Your task to perform on an android device: uninstall "McDonald's" Image 0: 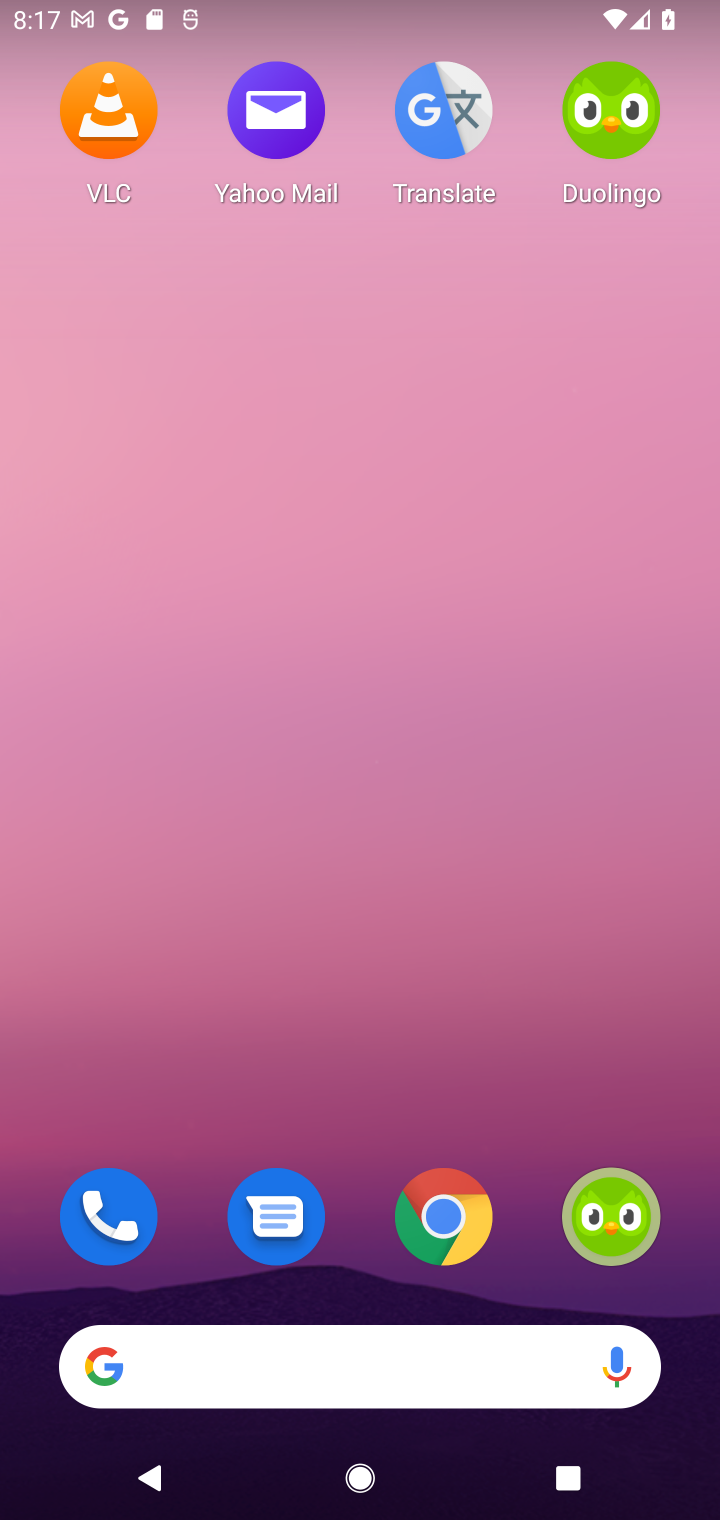
Step 0: press home button
Your task to perform on an android device: uninstall "McDonald's" Image 1: 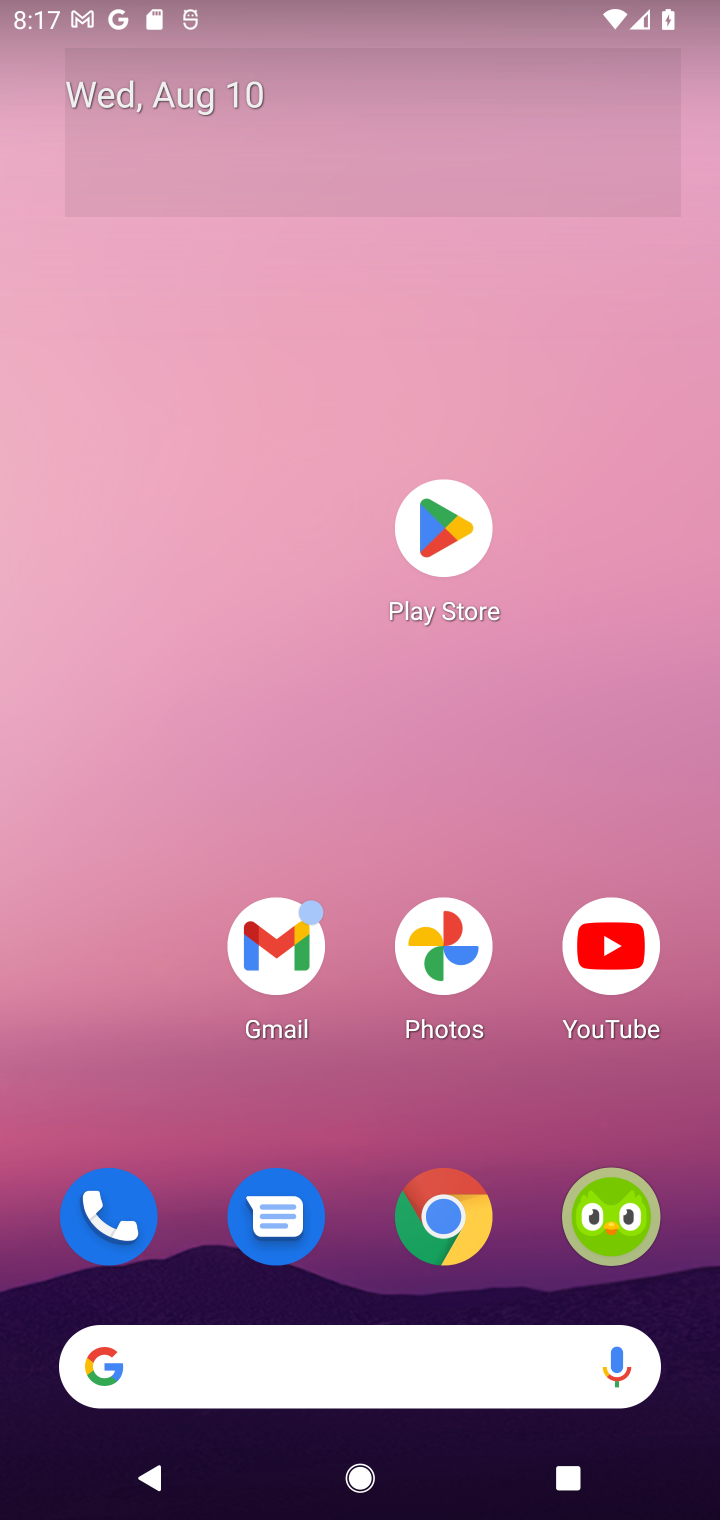
Step 1: click (460, 516)
Your task to perform on an android device: uninstall "McDonald's" Image 2: 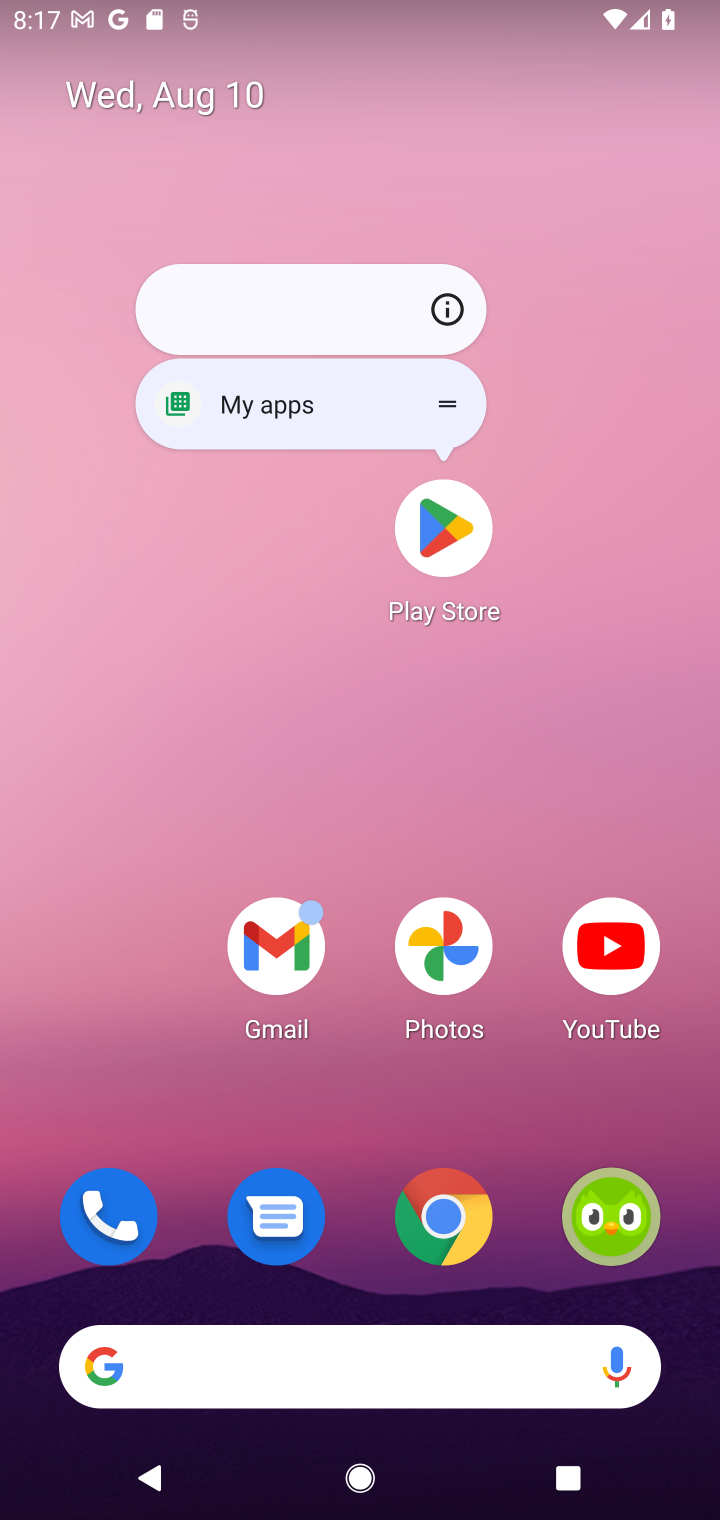
Step 2: click (445, 536)
Your task to perform on an android device: uninstall "McDonald's" Image 3: 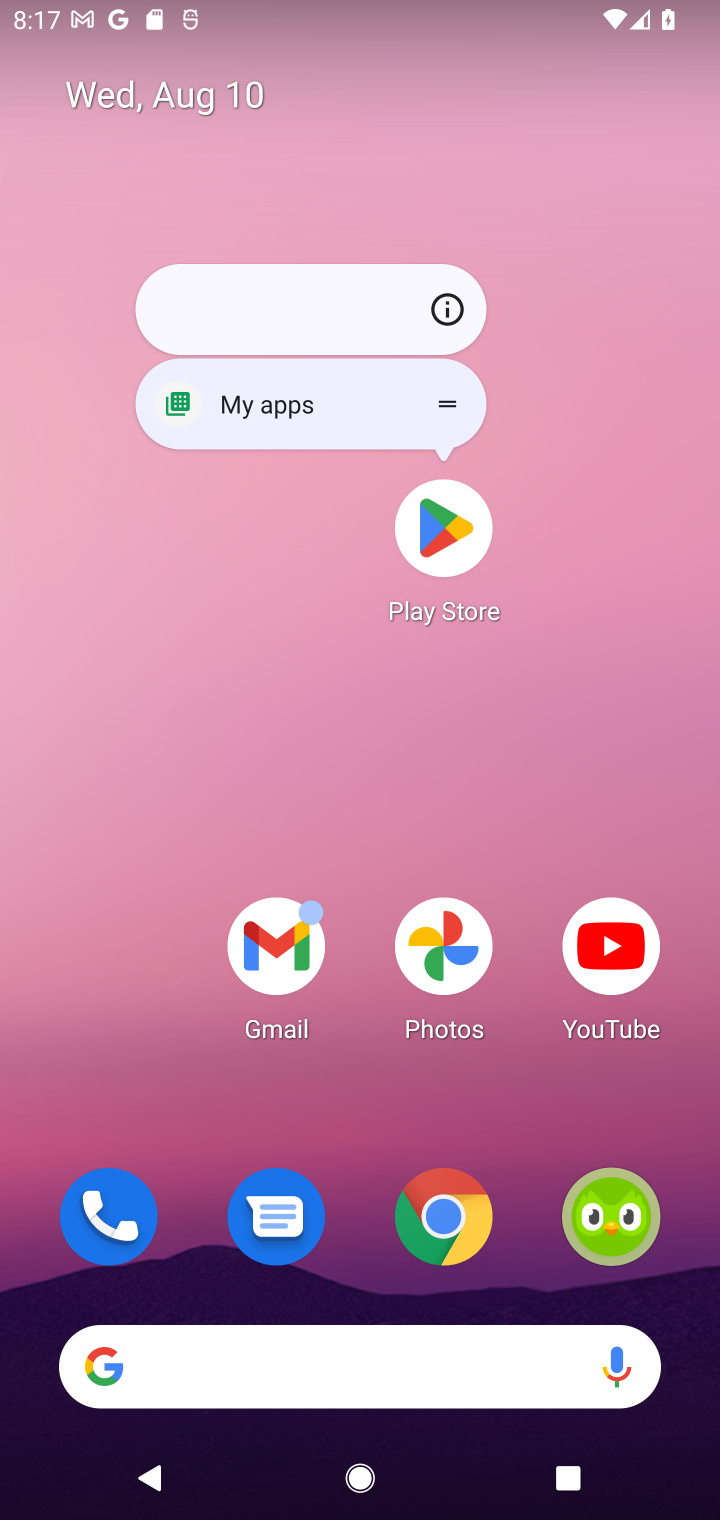
Step 3: click (447, 531)
Your task to perform on an android device: uninstall "McDonald's" Image 4: 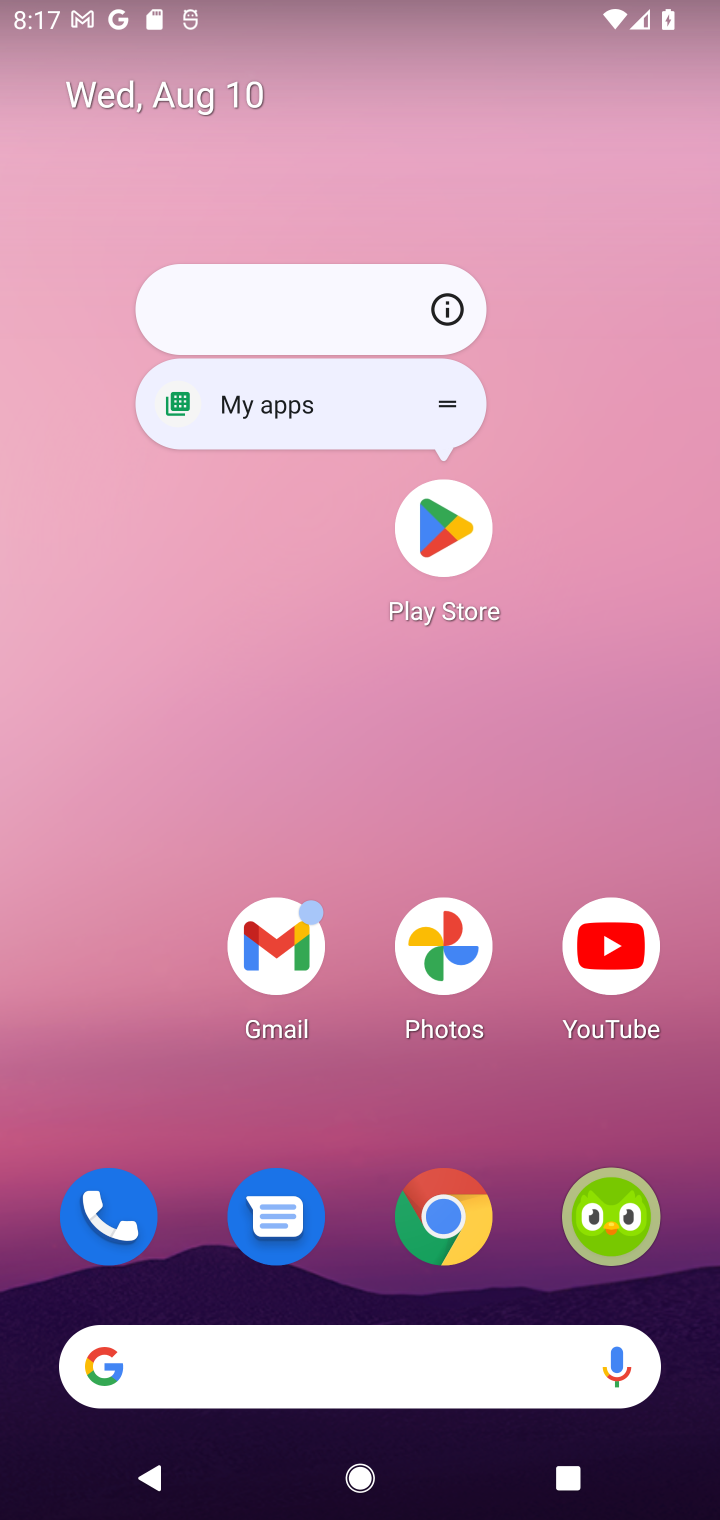
Step 4: click (447, 529)
Your task to perform on an android device: uninstall "McDonald's" Image 5: 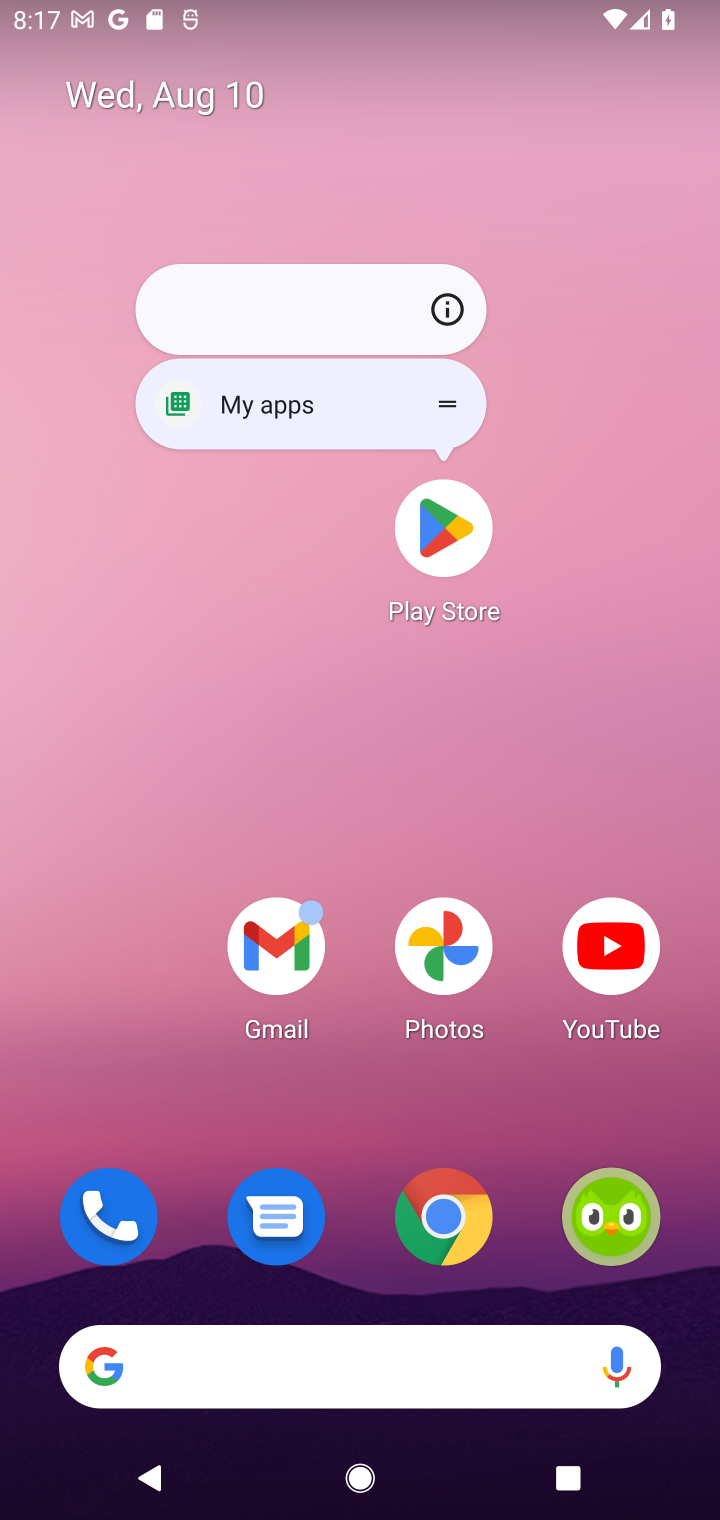
Step 5: click (447, 527)
Your task to perform on an android device: uninstall "McDonald's" Image 6: 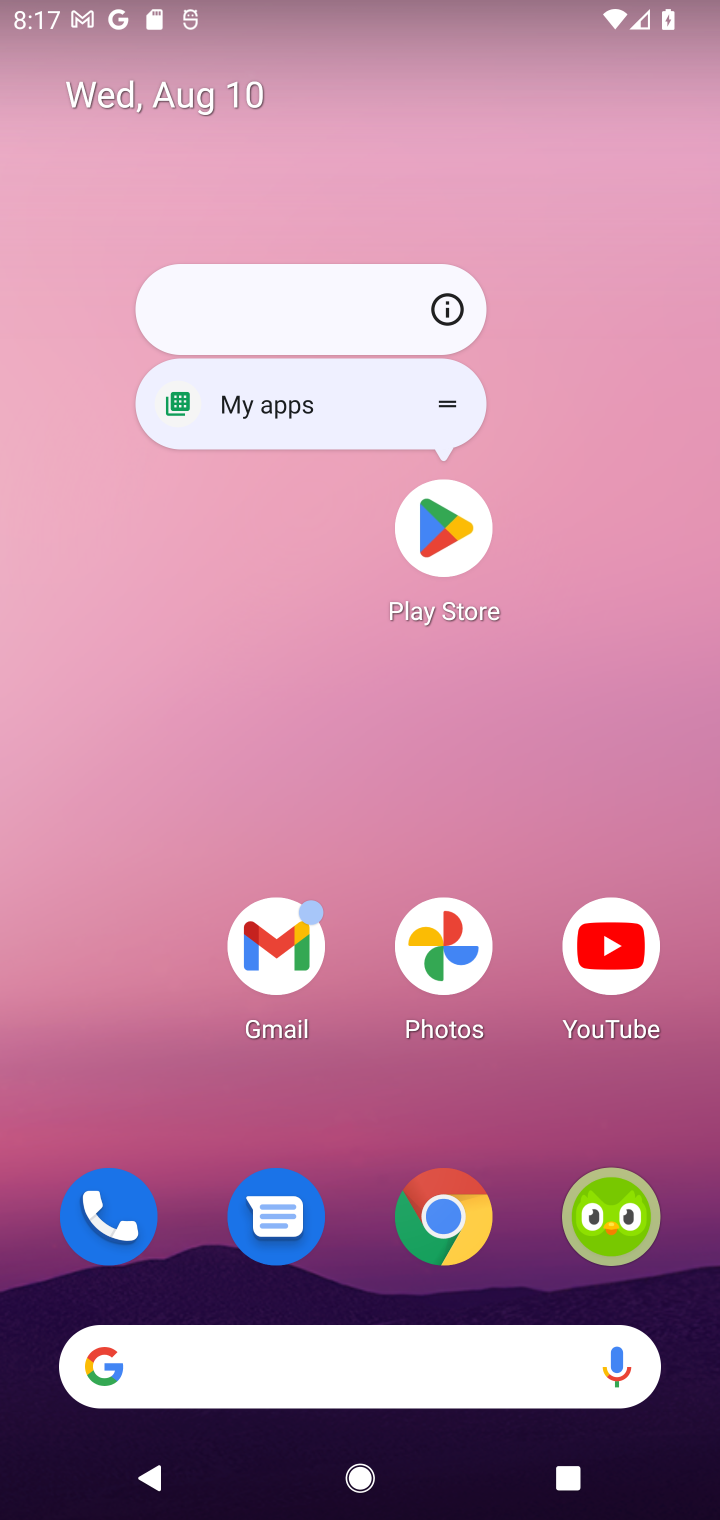
Step 6: click (447, 531)
Your task to perform on an android device: uninstall "McDonald's" Image 7: 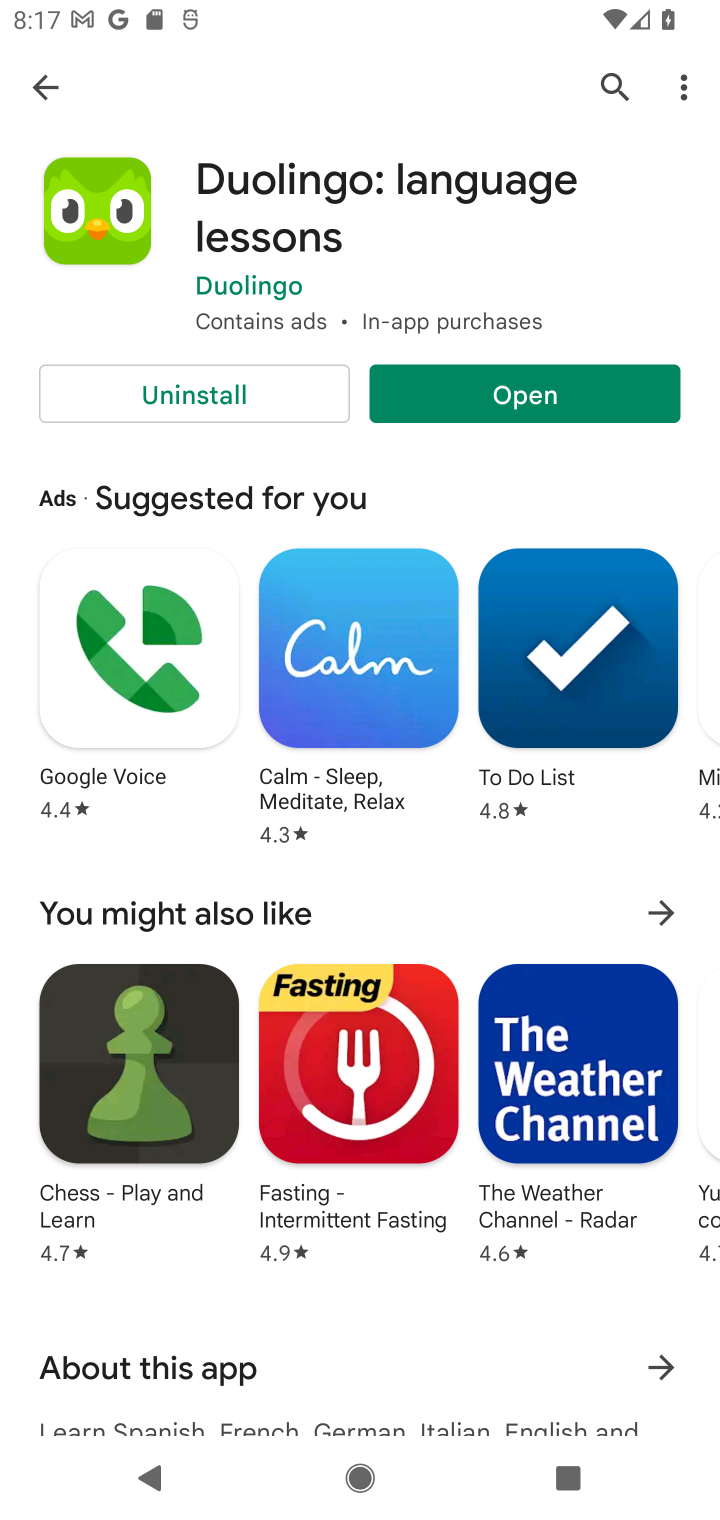
Step 7: click (612, 75)
Your task to perform on an android device: uninstall "McDonald's" Image 8: 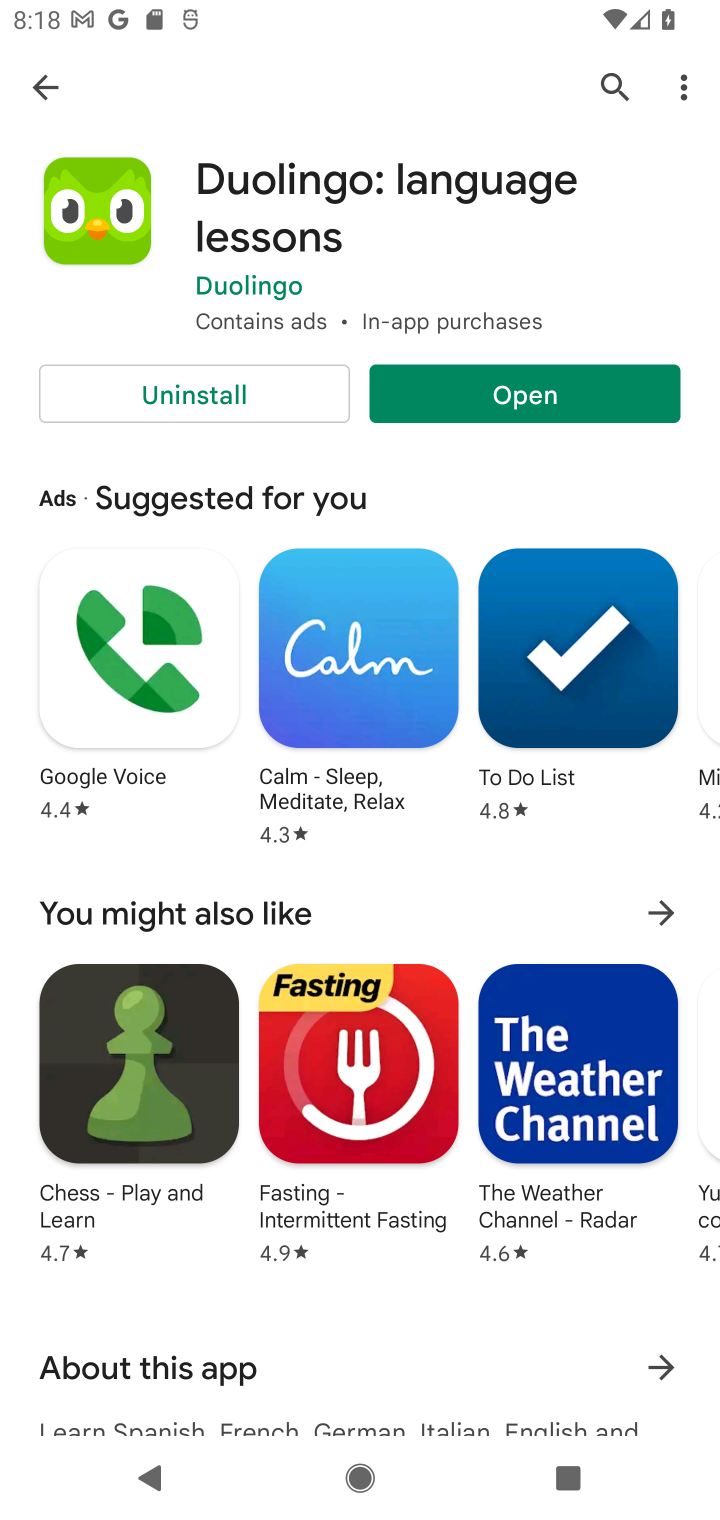
Step 8: click (599, 77)
Your task to perform on an android device: uninstall "McDonald's" Image 9: 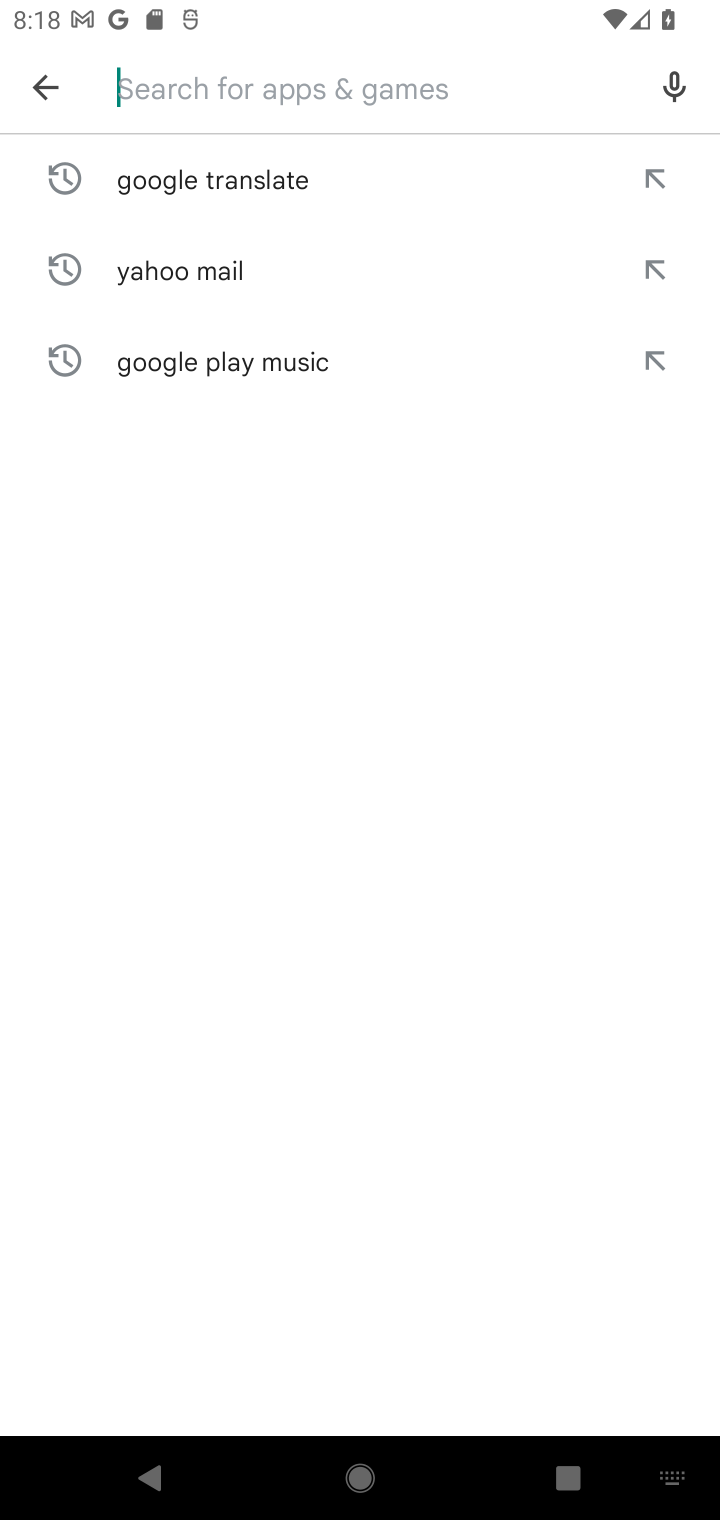
Step 9: type "McDonald's"
Your task to perform on an android device: uninstall "McDonald's" Image 10: 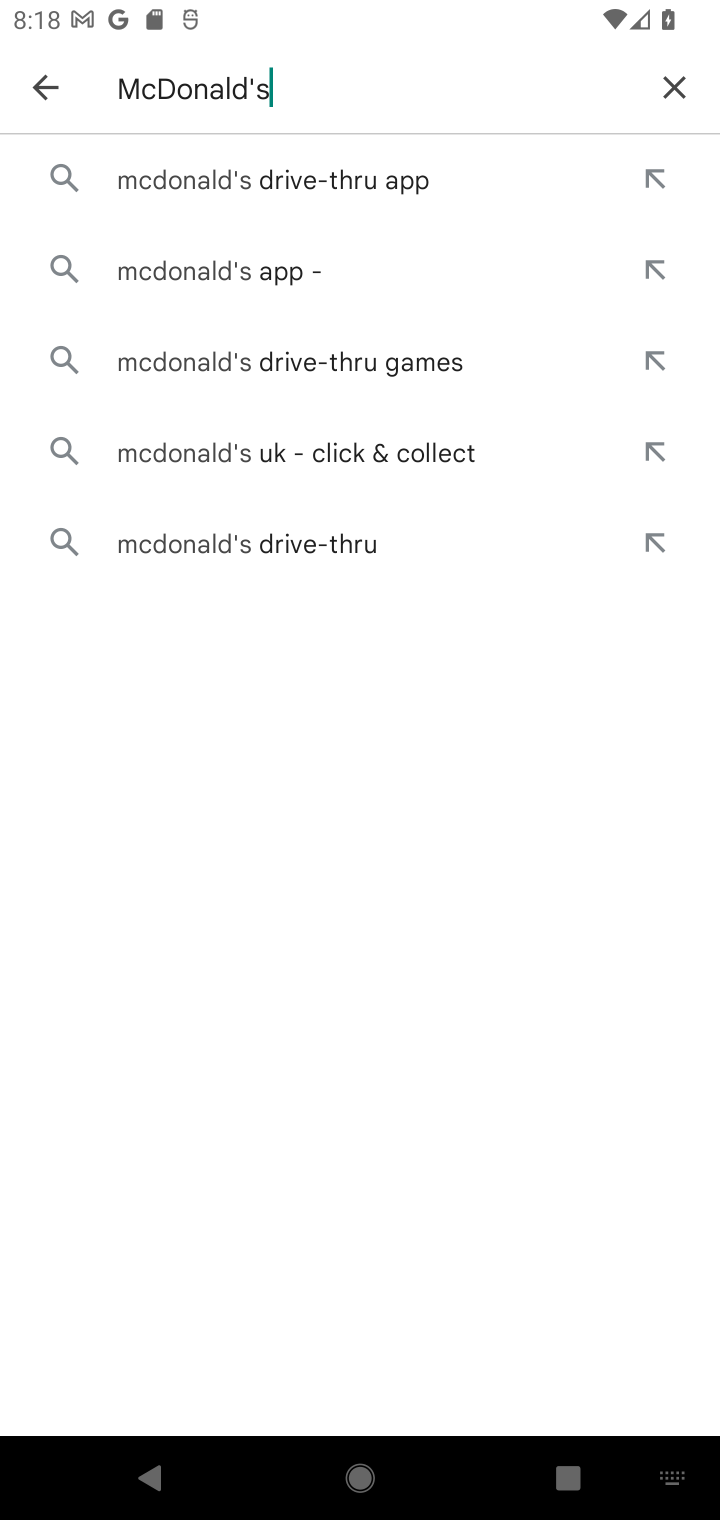
Step 10: click (333, 178)
Your task to perform on an android device: uninstall "McDonald's" Image 11: 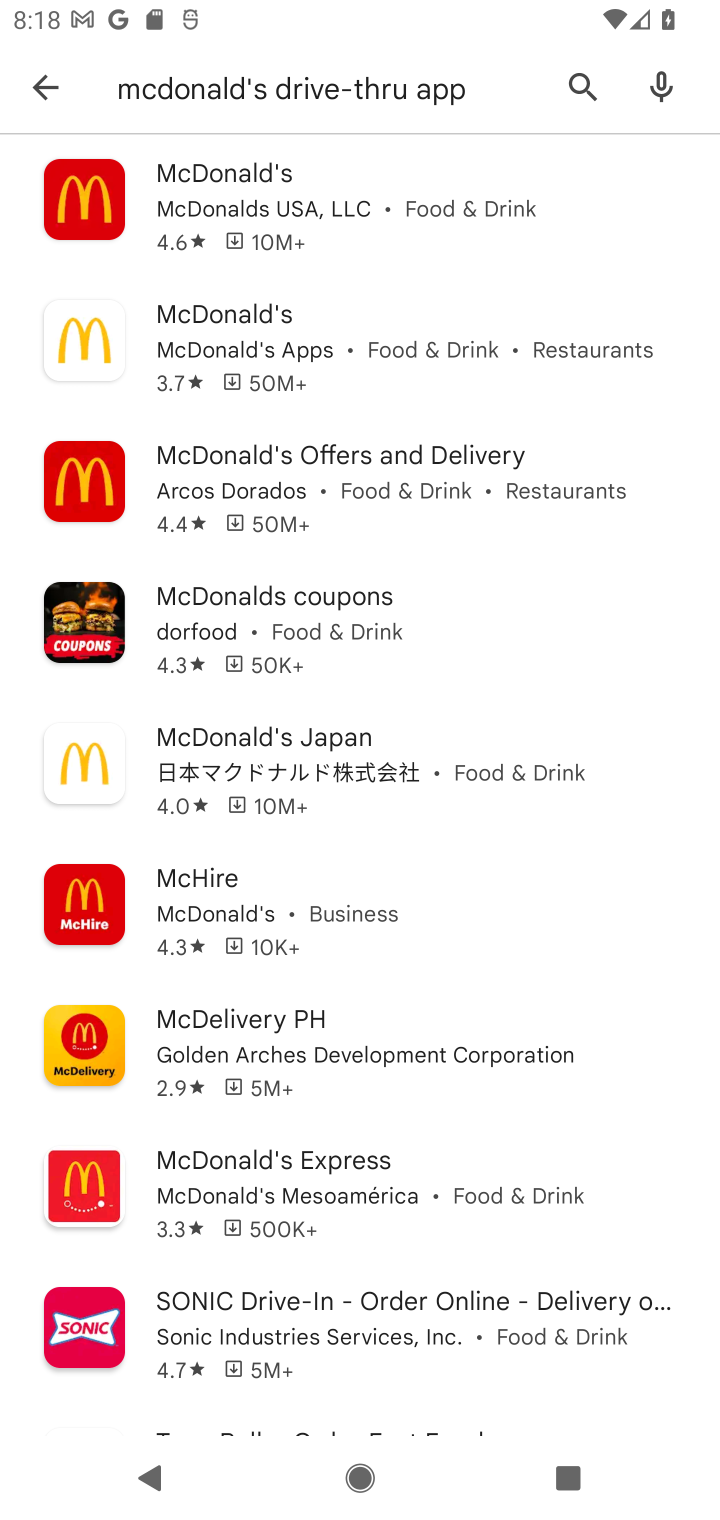
Step 11: click (311, 199)
Your task to perform on an android device: uninstall "McDonald's" Image 12: 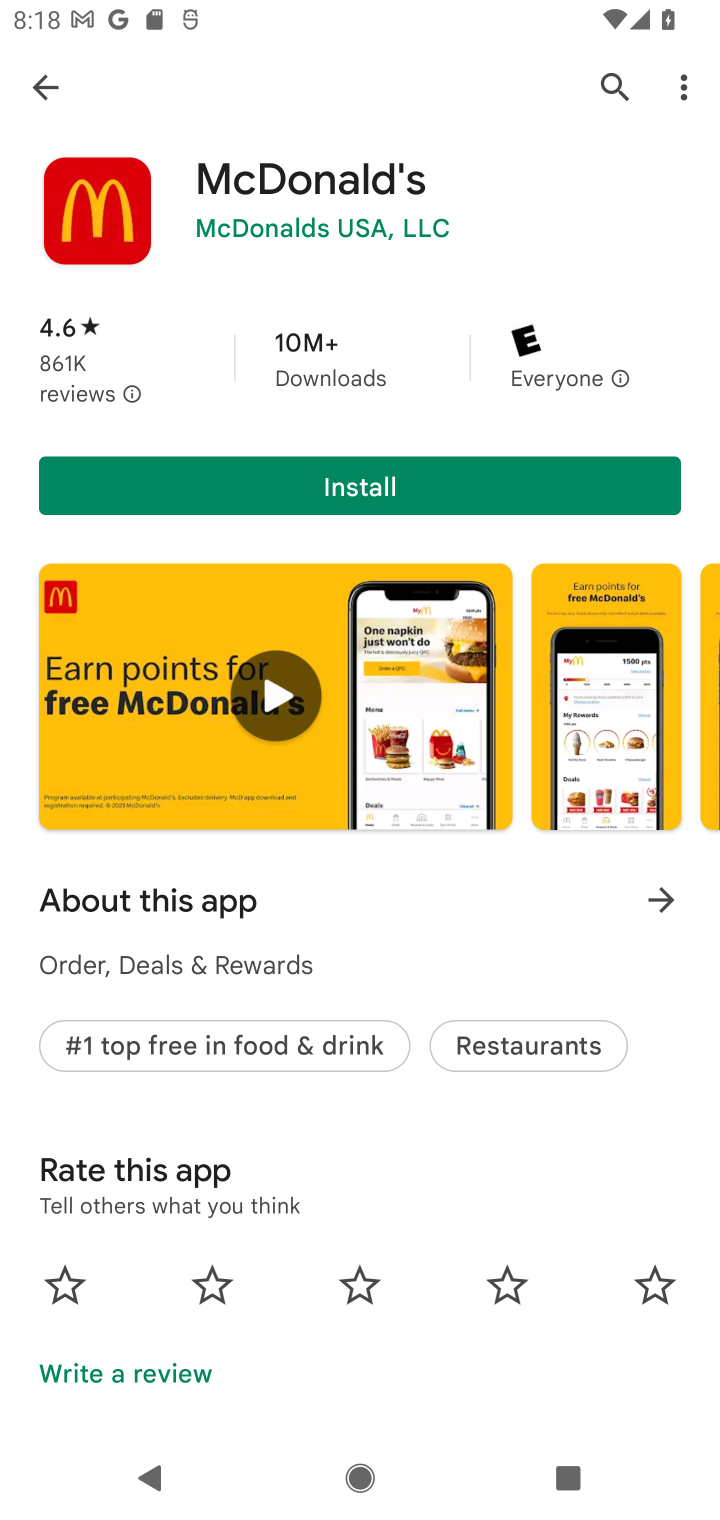
Step 12: task complete